Your task to perform on an android device: Open Android settings Image 0: 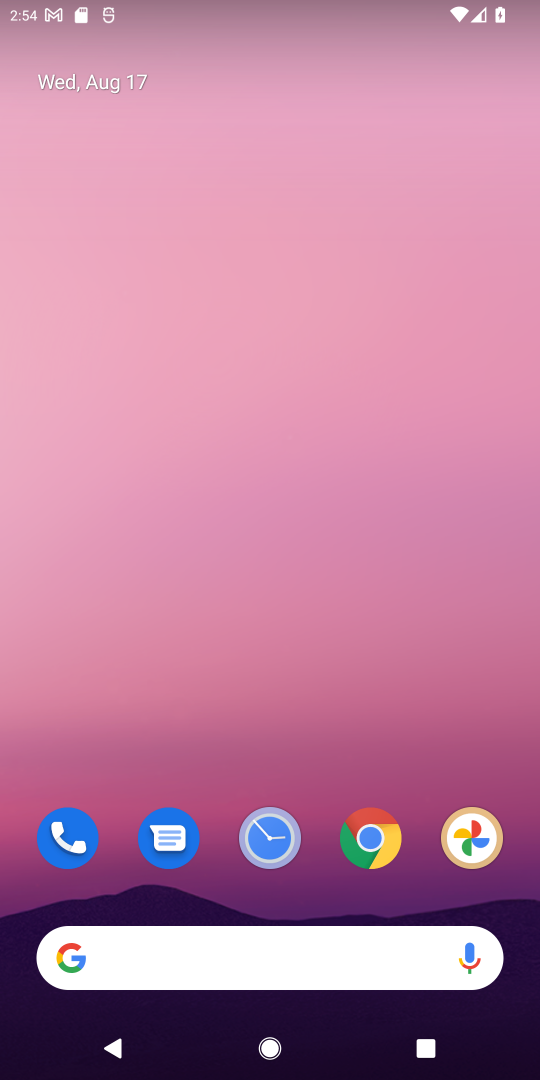
Step 0: drag from (237, 885) to (200, 372)
Your task to perform on an android device: Open Android settings Image 1: 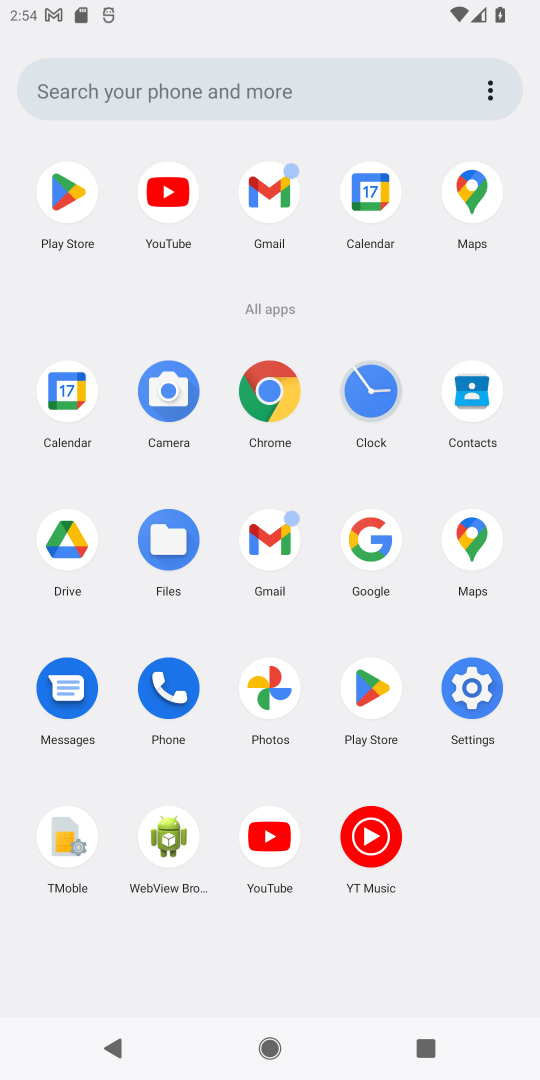
Step 1: click (487, 678)
Your task to perform on an android device: Open Android settings Image 2: 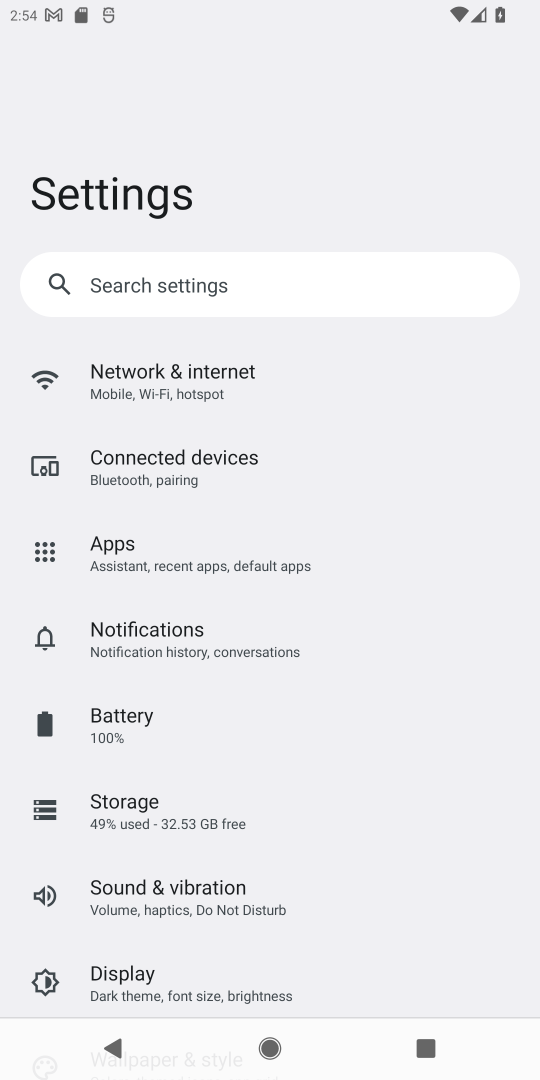
Step 2: task complete